Your task to perform on an android device: move a message to another label in the gmail app Image 0: 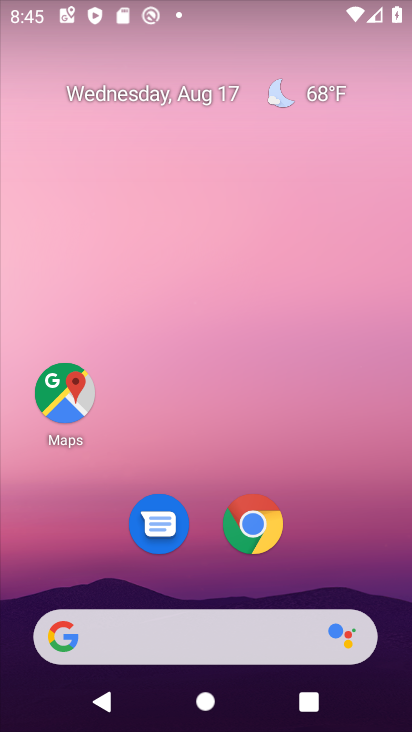
Step 0: drag from (222, 456) to (230, 0)
Your task to perform on an android device: move a message to another label in the gmail app Image 1: 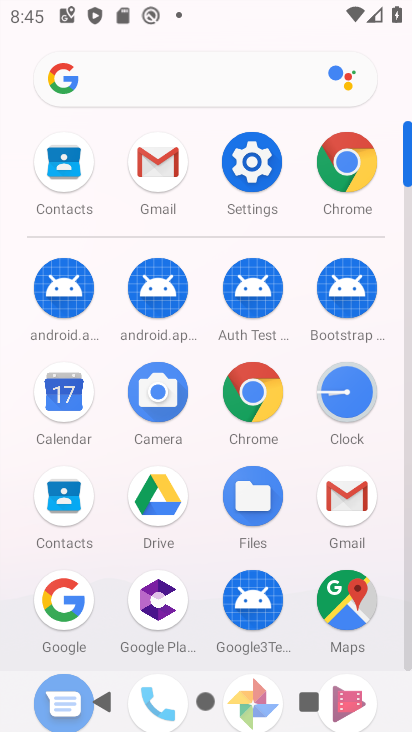
Step 1: click (161, 166)
Your task to perform on an android device: move a message to another label in the gmail app Image 2: 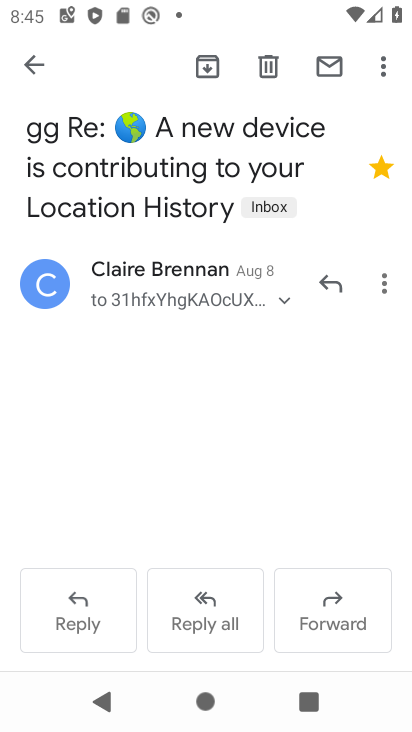
Step 2: click (39, 60)
Your task to perform on an android device: move a message to another label in the gmail app Image 3: 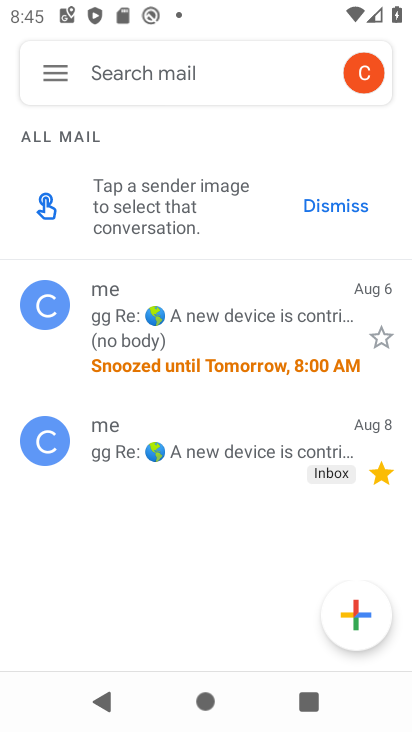
Step 3: click (211, 444)
Your task to perform on an android device: move a message to another label in the gmail app Image 4: 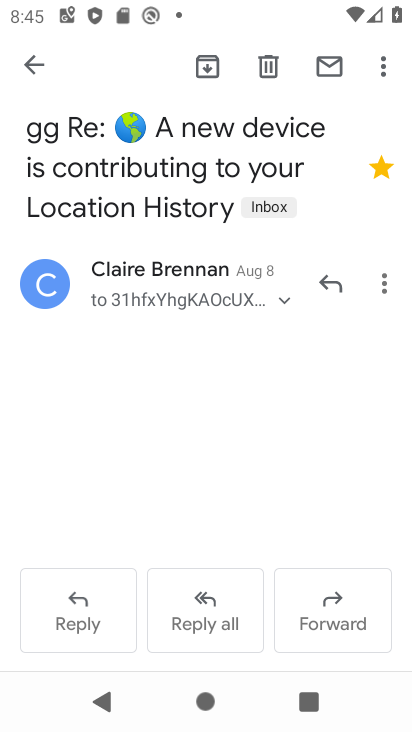
Step 4: click (383, 62)
Your task to perform on an android device: move a message to another label in the gmail app Image 5: 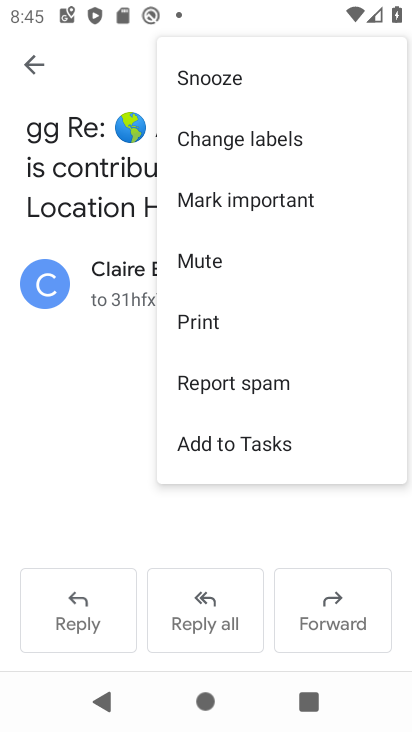
Step 5: click (303, 138)
Your task to perform on an android device: move a message to another label in the gmail app Image 6: 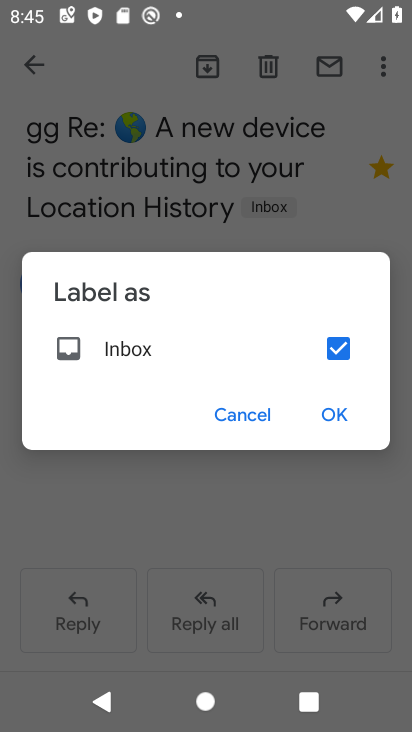
Step 6: click (334, 350)
Your task to perform on an android device: move a message to another label in the gmail app Image 7: 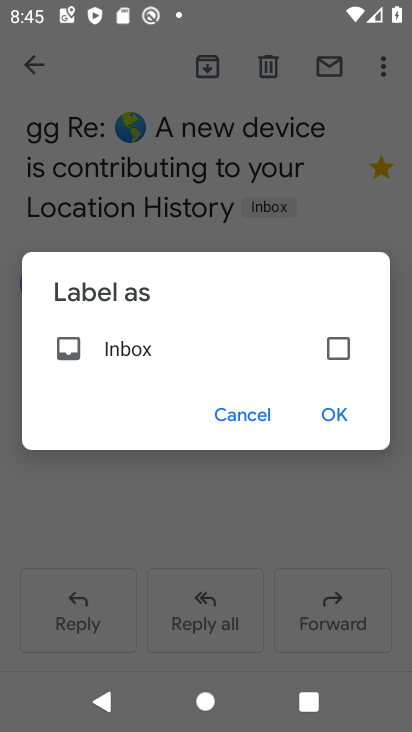
Step 7: task complete